Your task to perform on an android device: make emails show in primary in the gmail app Image 0: 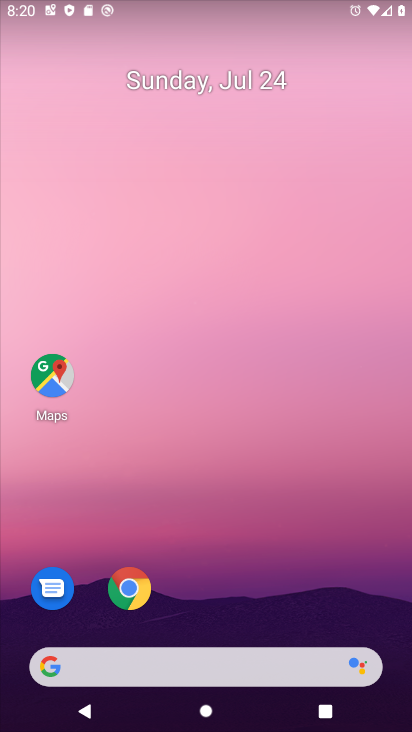
Step 0: drag from (289, 564) to (245, 324)
Your task to perform on an android device: make emails show in primary in the gmail app Image 1: 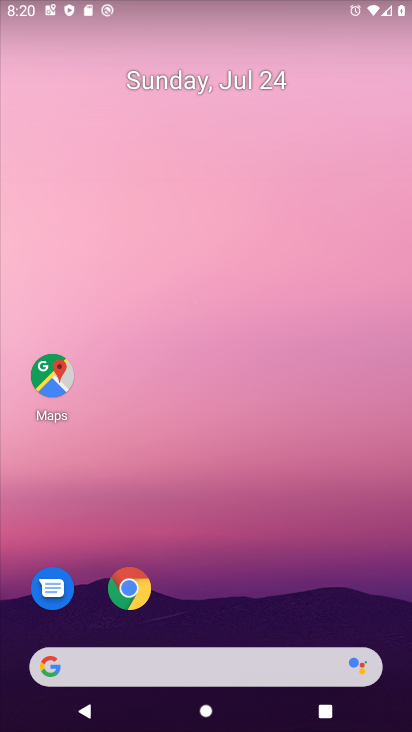
Step 1: drag from (243, 613) to (190, 204)
Your task to perform on an android device: make emails show in primary in the gmail app Image 2: 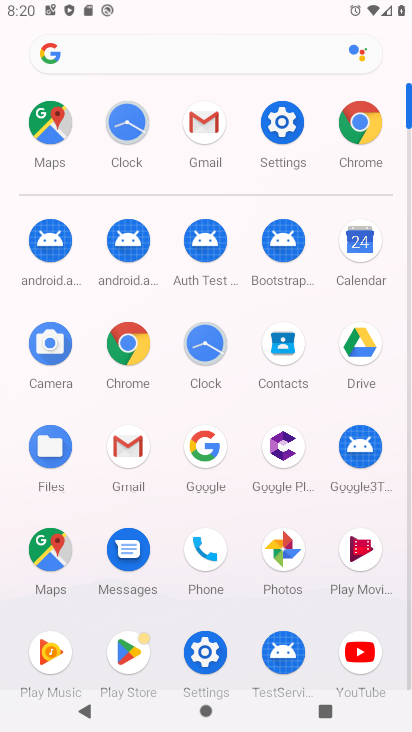
Step 2: click (204, 130)
Your task to perform on an android device: make emails show in primary in the gmail app Image 3: 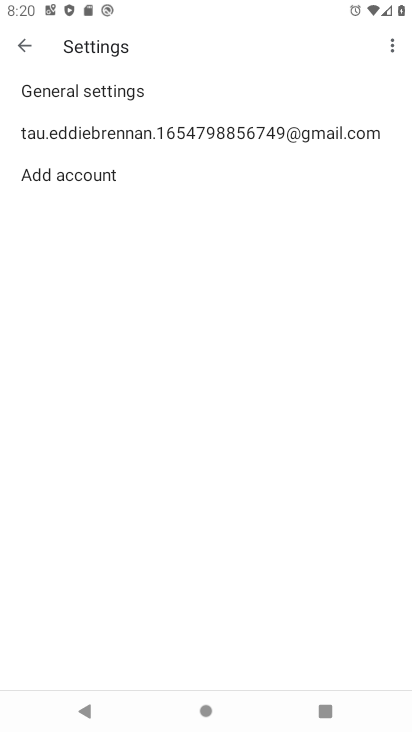
Step 3: click (68, 134)
Your task to perform on an android device: make emails show in primary in the gmail app Image 4: 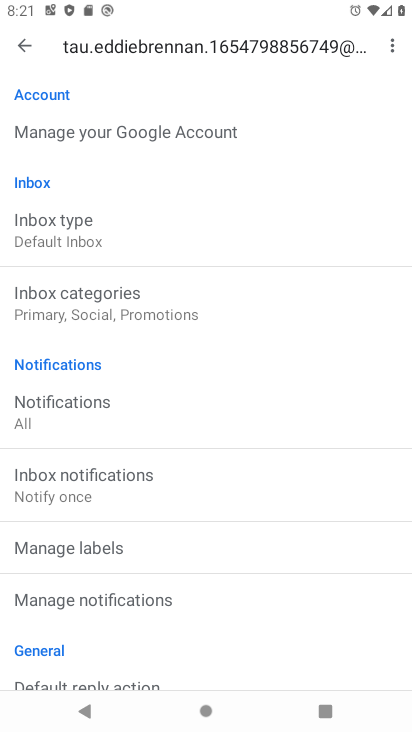
Step 4: task complete